Your task to perform on an android device: Open network settings Image 0: 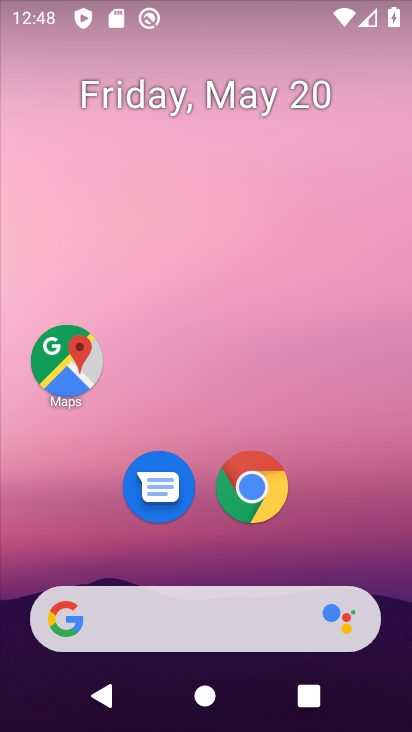
Step 0: drag from (346, 522) to (307, 132)
Your task to perform on an android device: Open network settings Image 1: 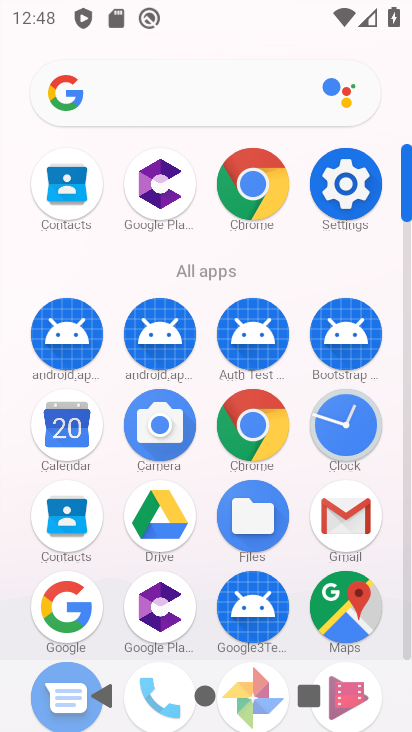
Step 1: click (339, 197)
Your task to perform on an android device: Open network settings Image 2: 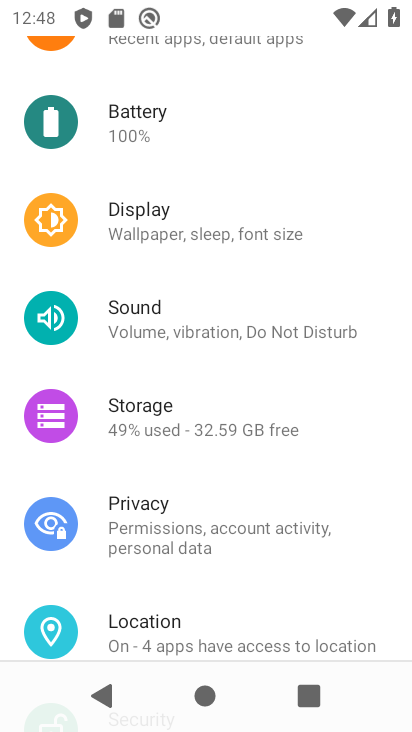
Step 2: drag from (264, 558) to (297, 712)
Your task to perform on an android device: Open network settings Image 3: 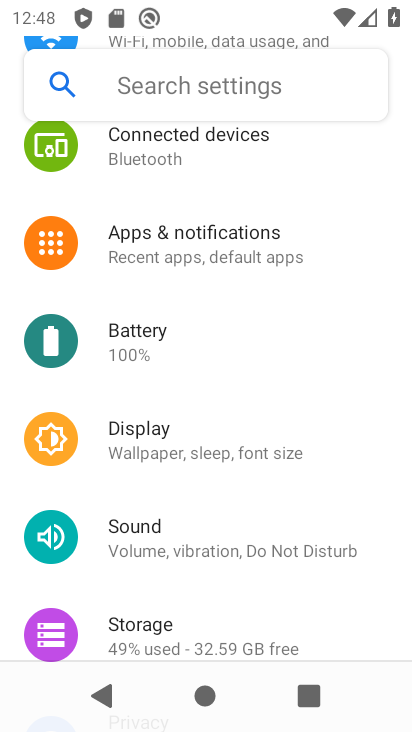
Step 3: drag from (233, 209) to (201, 602)
Your task to perform on an android device: Open network settings Image 4: 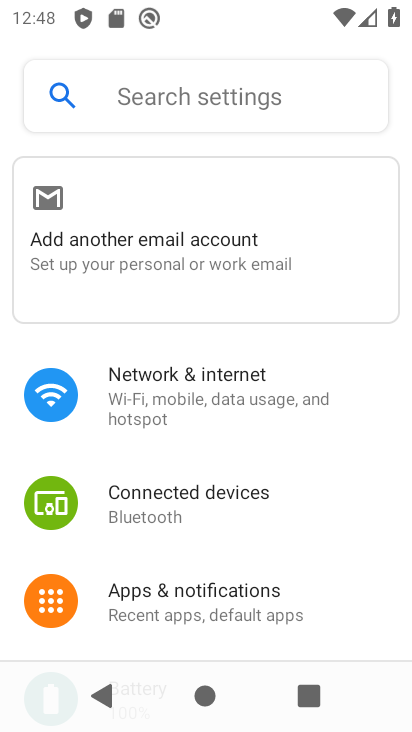
Step 4: click (186, 380)
Your task to perform on an android device: Open network settings Image 5: 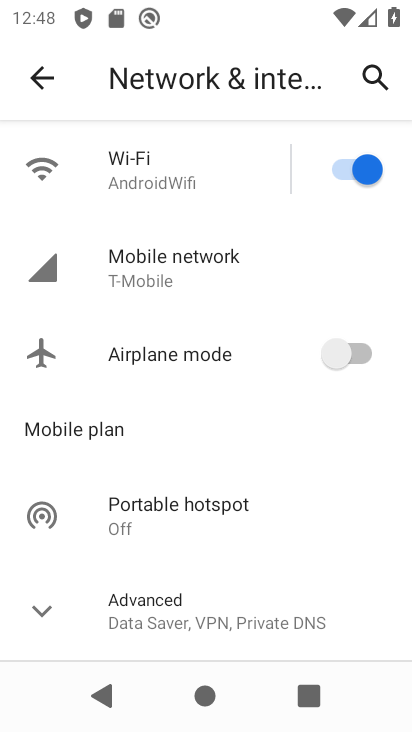
Step 5: click (219, 179)
Your task to perform on an android device: Open network settings Image 6: 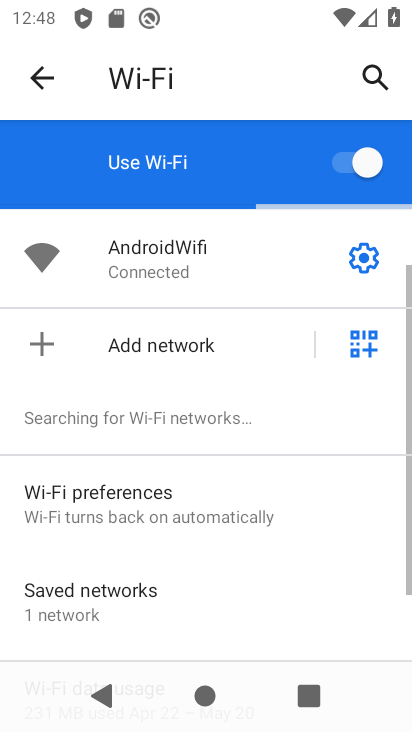
Step 6: click (368, 268)
Your task to perform on an android device: Open network settings Image 7: 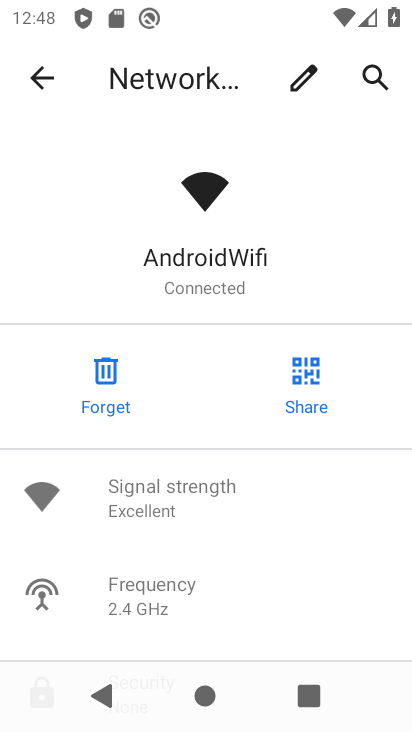
Step 7: task complete